Your task to perform on an android device: read, delete, or share a saved page in the chrome app Image 0: 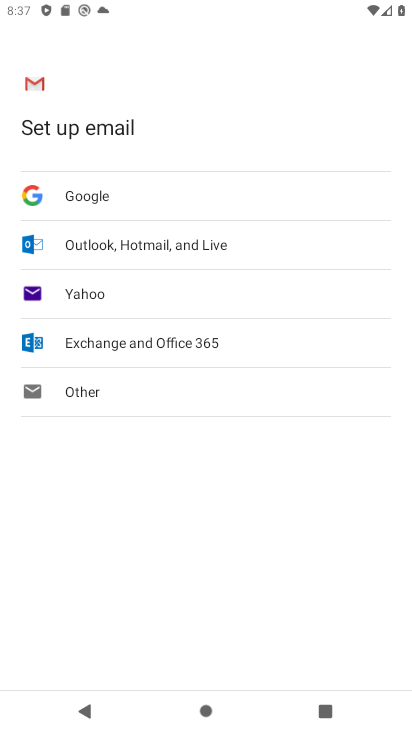
Step 0: press home button
Your task to perform on an android device: read, delete, or share a saved page in the chrome app Image 1: 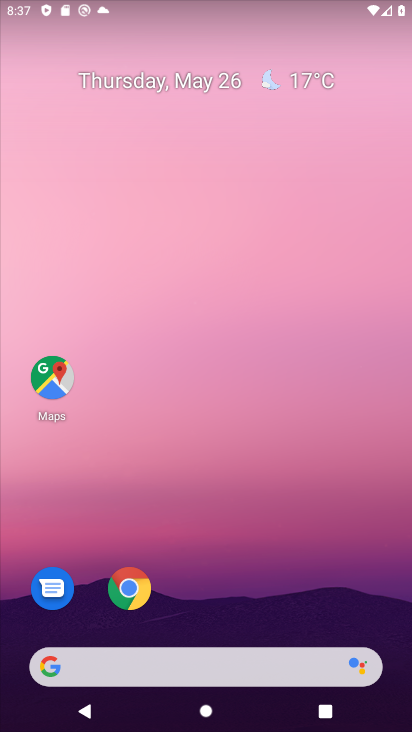
Step 1: click (129, 588)
Your task to perform on an android device: read, delete, or share a saved page in the chrome app Image 2: 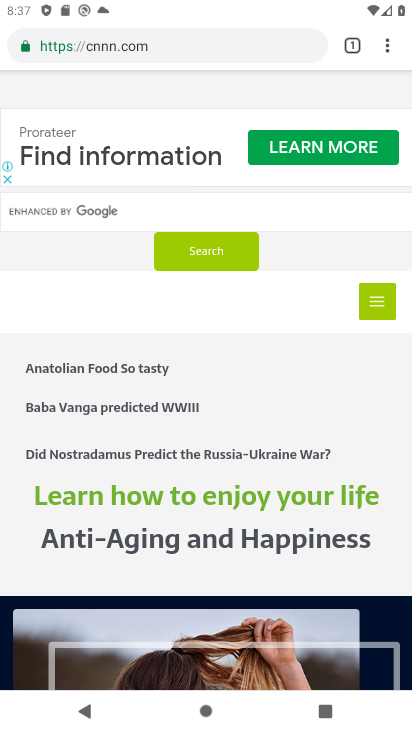
Step 2: click (386, 49)
Your task to perform on an android device: read, delete, or share a saved page in the chrome app Image 3: 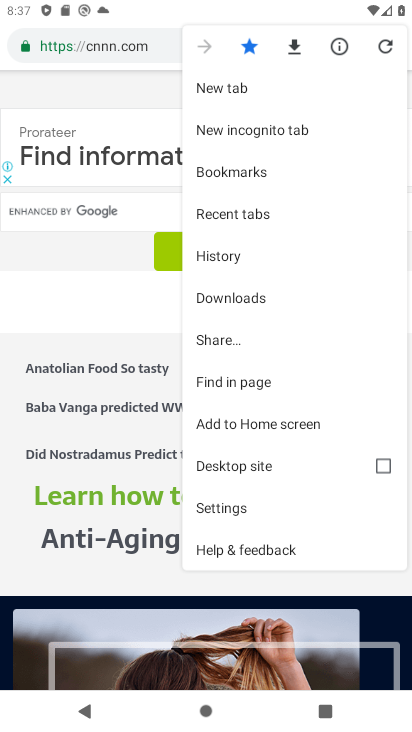
Step 3: click (214, 502)
Your task to perform on an android device: read, delete, or share a saved page in the chrome app Image 4: 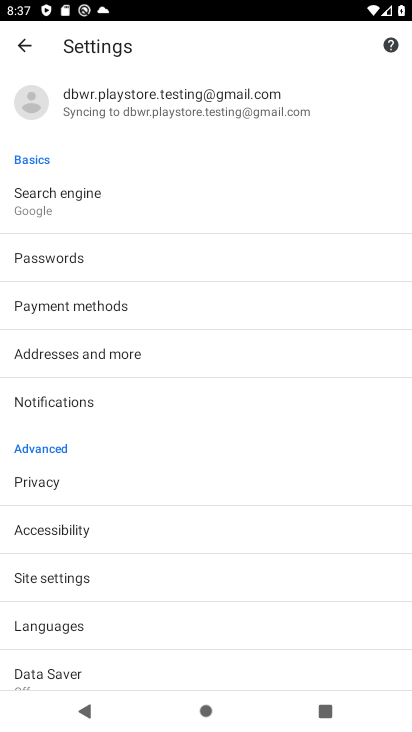
Step 4: press back button
Your task to perform on an android device: read, delete, or share a saved page in the chrome app Image 5: 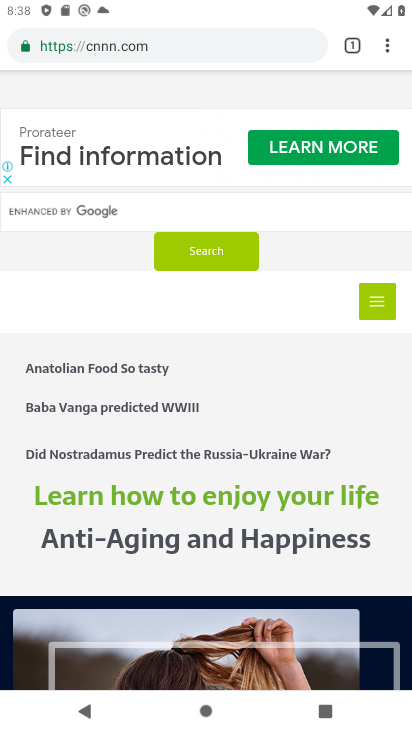
Step 5: click (387, 51)
Your task to perform on an android device: read, delete, or share a saved page in the chrome app Image 6: 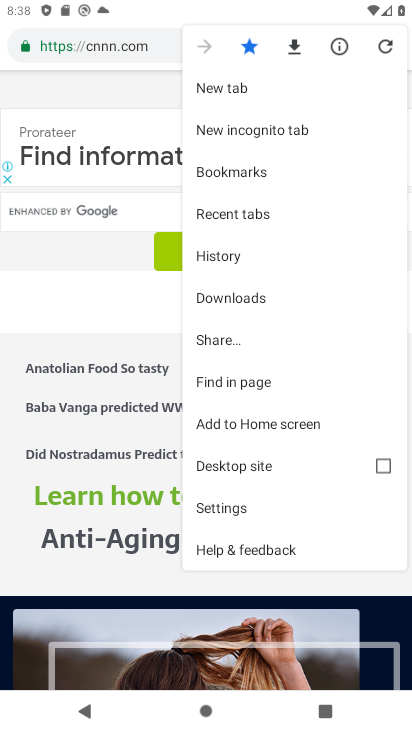
Step 6: click (243, 292)
Your task to perform on an android device: read, delete, or share a saved page in the chrome app Image 7: 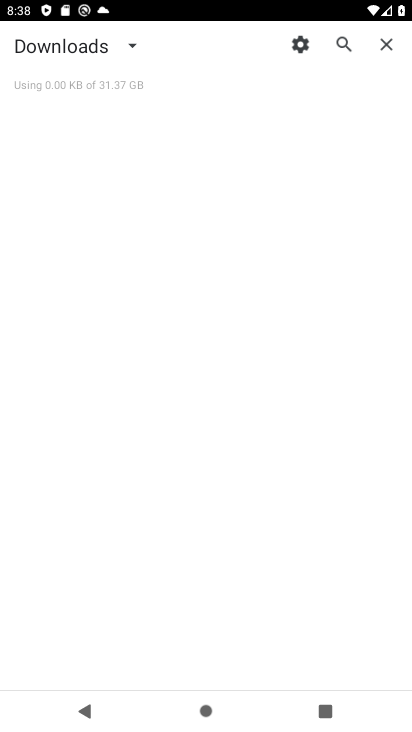
Step 7: click (133, 41)
Your task to perform on an android device: read, delete, or share a saved page in the chrome app Image 8: 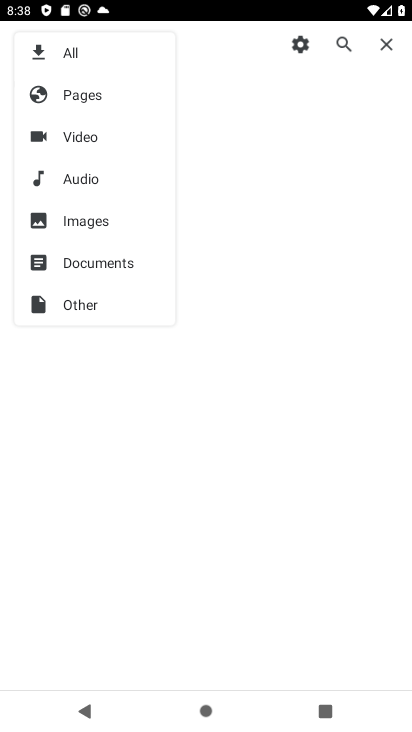
Step 8: click (75, 92)
Your task to perform on an android device: read, delete, or share a saved page in the chrome app Image 9: 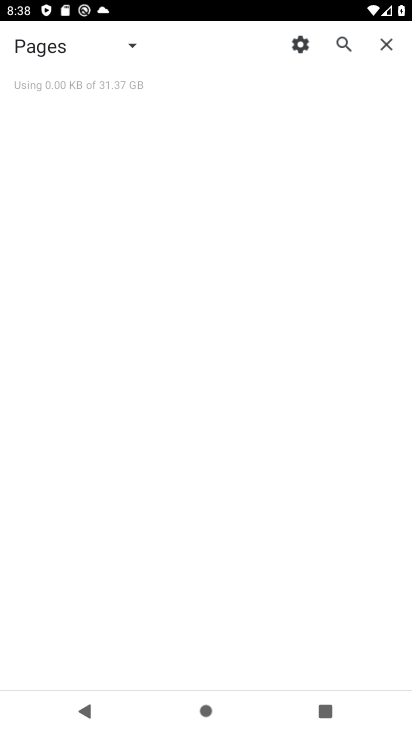
Step 9: task complete